Your task to perform on an android device: Open the most recent email and forward to: 'tau.amandabrenna.1654798856750@gmail.com'. Image 0: 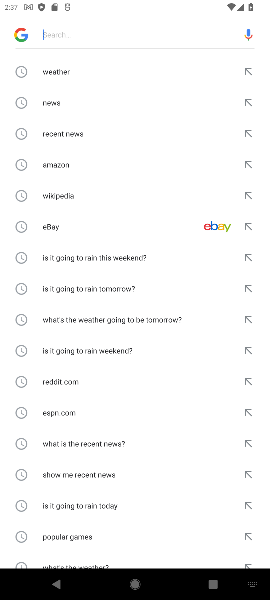
Step 0: press home button
Your task to perform on an android device: Open the most recent email and forward to: 'tau.amandabrenna.1654798856750@gmail.com'. Image 1: 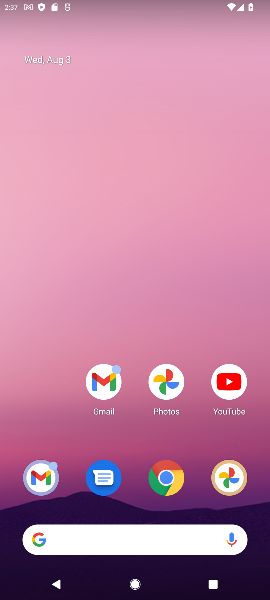
Step 1: click (112, 388)
Your task to perform on an android device: Open the most recent email and forward to: 'tau.amandabrenna.1654798856750@gmail.com'. Image 2: 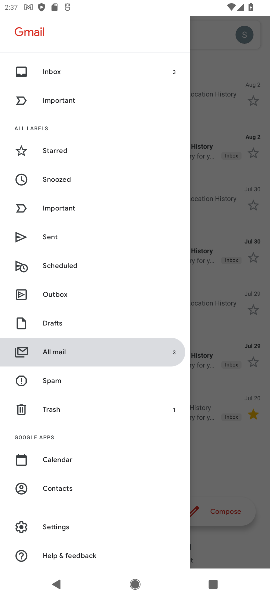
Step 2: click (224, 67)
Your task to perform on an android device: Open the most recent email and forward to: 'tau.amandabrenna.1654798856750@gmail.com'. Image 3: 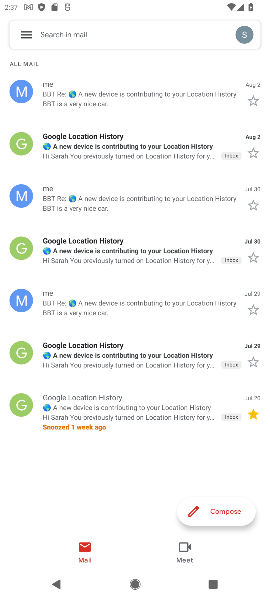
Step 3: click (91, 42)
Your task to perform on an android device: Open the most recent email and forward to: 'tau.amandabrenna.1654798856750@gmail.com'. Image 4: 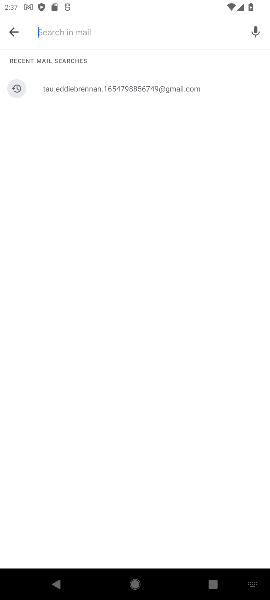
Step 4: type "tau.amandabrenna.1654798856750@gmail.com"
Your task to perform on an android device: Open the most recent email and forward to: 'tau.amandabrenna.1654798856750@gmail.com'. Image 5: 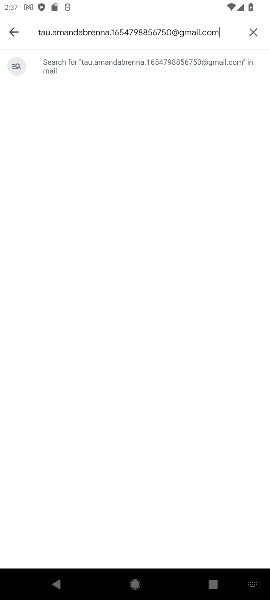
Step 5: click (194, 59)
Your task to perform on an android device: Open the most recent email and forward to: 'tau.amandabrenna.1654798856750@gmail.com'. Image 6: 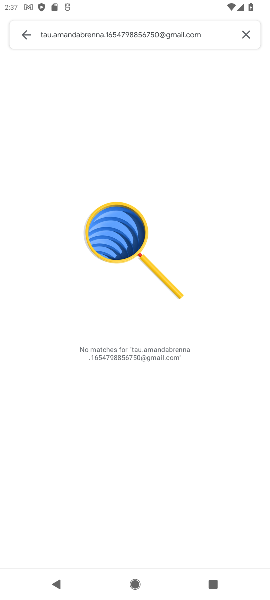
Step 6: task complete